Your task to perform on an android device: Open CNN.com Image 0: 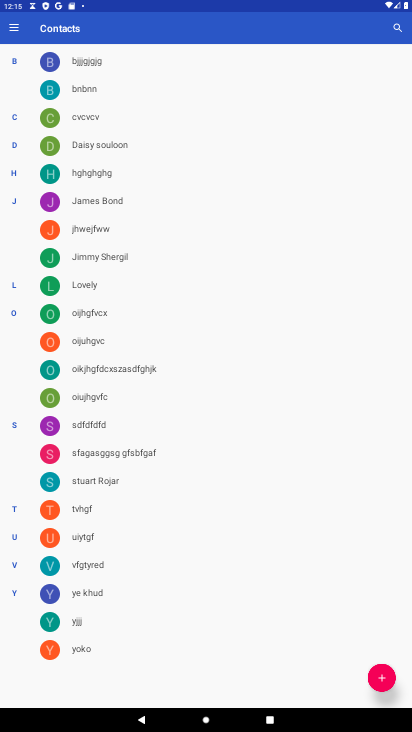
Step 0: press home button
Your task to perform on an android device: Open CNN.com Image 1: 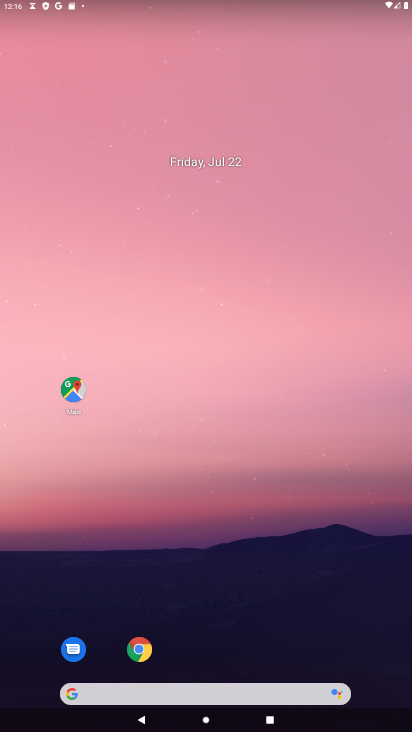
Step 1: click (181, 694)
Your task to perform on an android device: Open CNN.com Image 2: 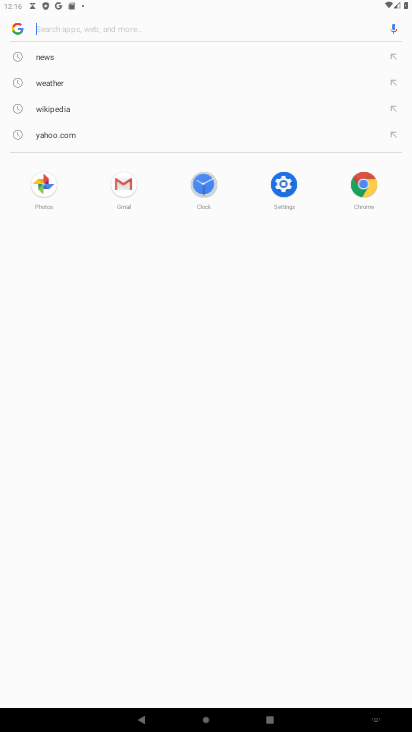
Step 2: type "cnn.com"
Your task to perform on an android device: Open CNN.com Image 3: 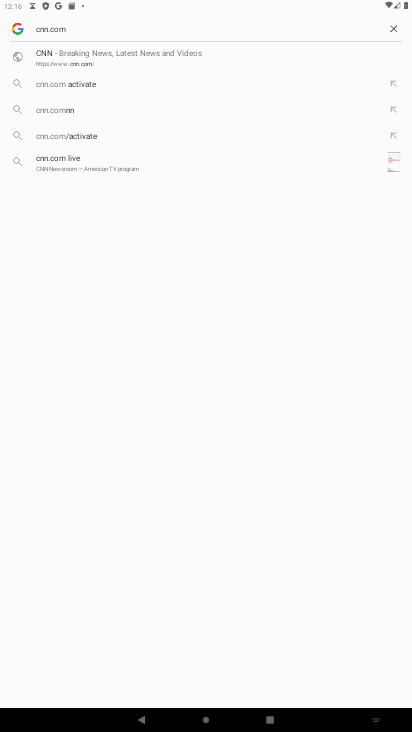
Step 3: click (66, 52)
Your task to perform on an android device: Open CNN.com Image 4: 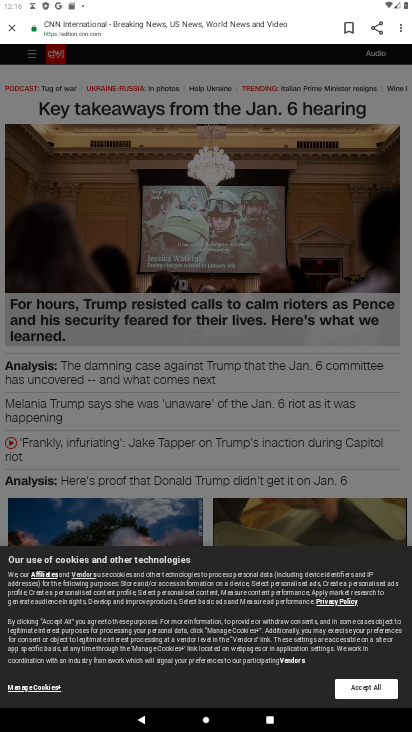
Step 4: task complete